Your task to perform on an android device: turn vacation reply on in the gmail app Image 0: 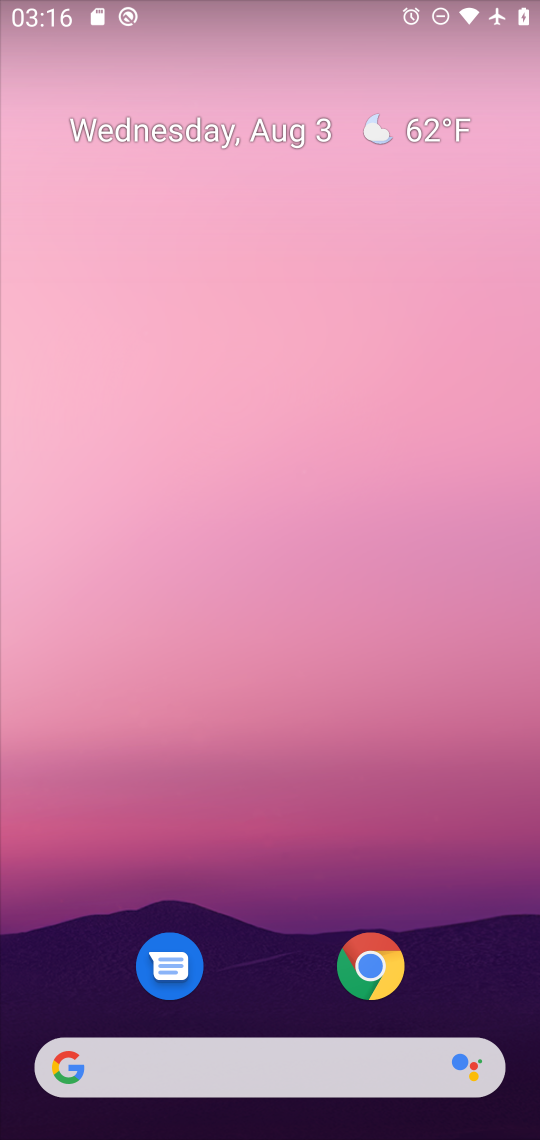
Step 0: drag from (270, 924) to (310, 475)
Your task to perform on an android device: turn vacation reply on in the gmail app Image 1: 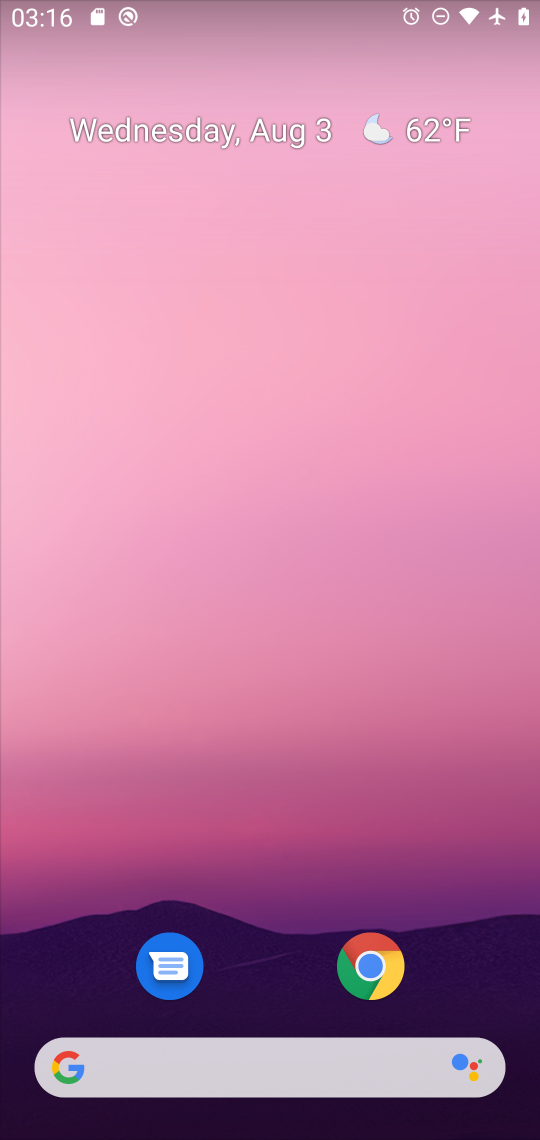
Step 1: drag from (275, 966) to (271, 314)
Your task to perform on an android device: turn vacation reply on in the gmail app Image 2: 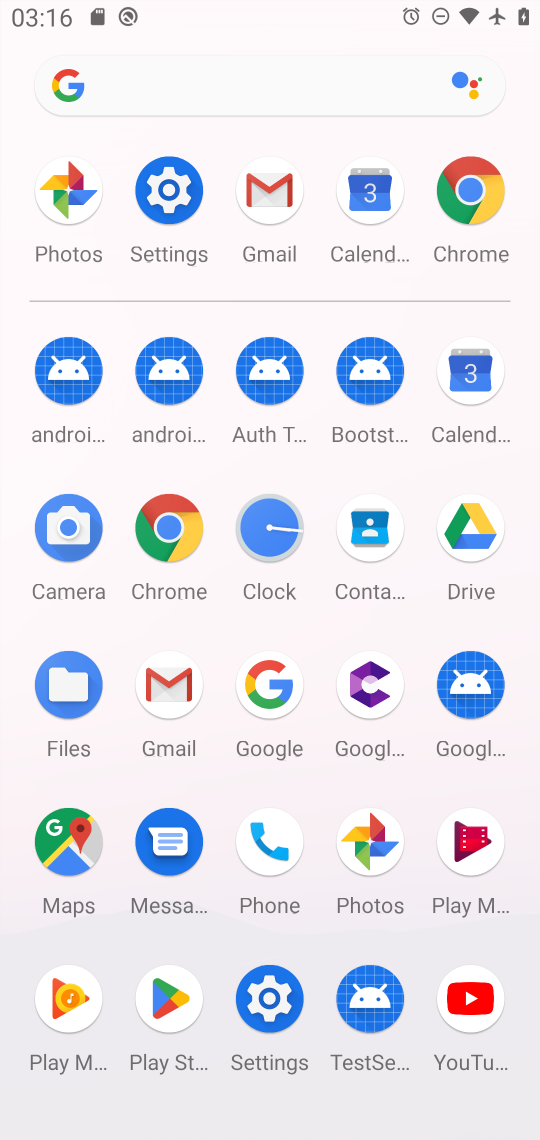
Step 2: click (262, 204)
Your task to perform on an android device: turn vacation reply on in the gmail app Image 3: 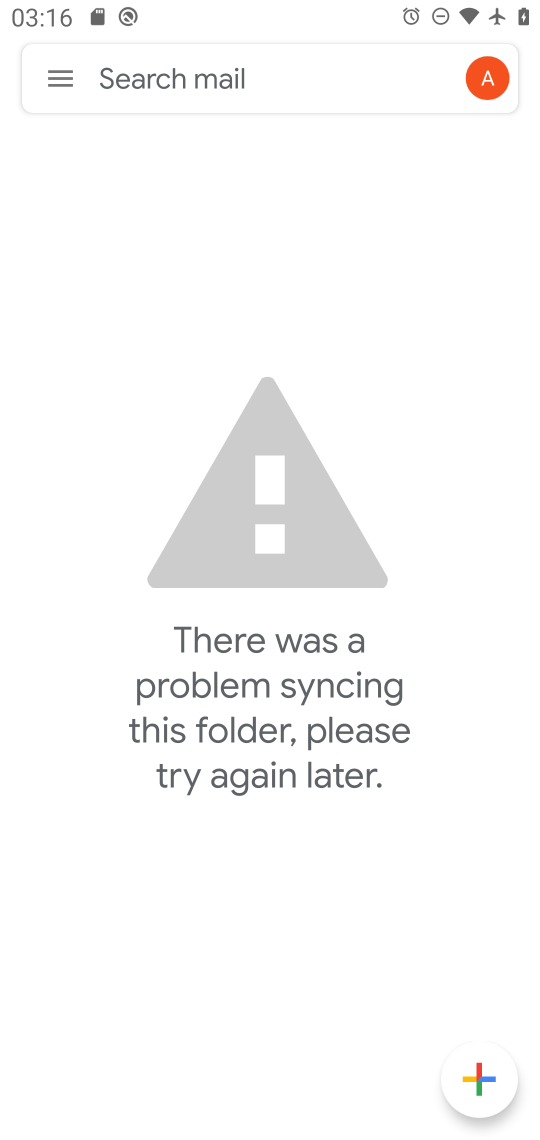
Step 3: click (70, 81)
Your task to perform on an android device: turn vacation reply on in the gmail app Image 4: 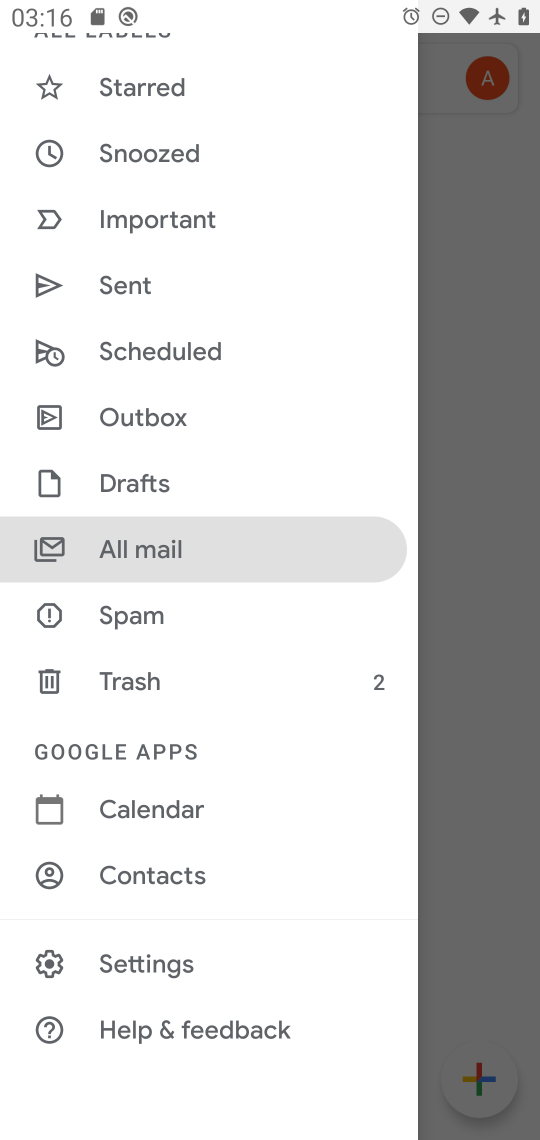
Step 4: click (181, 968)
Your task to perform on an android device: turn vacation reply on in the gmail app Image 5: 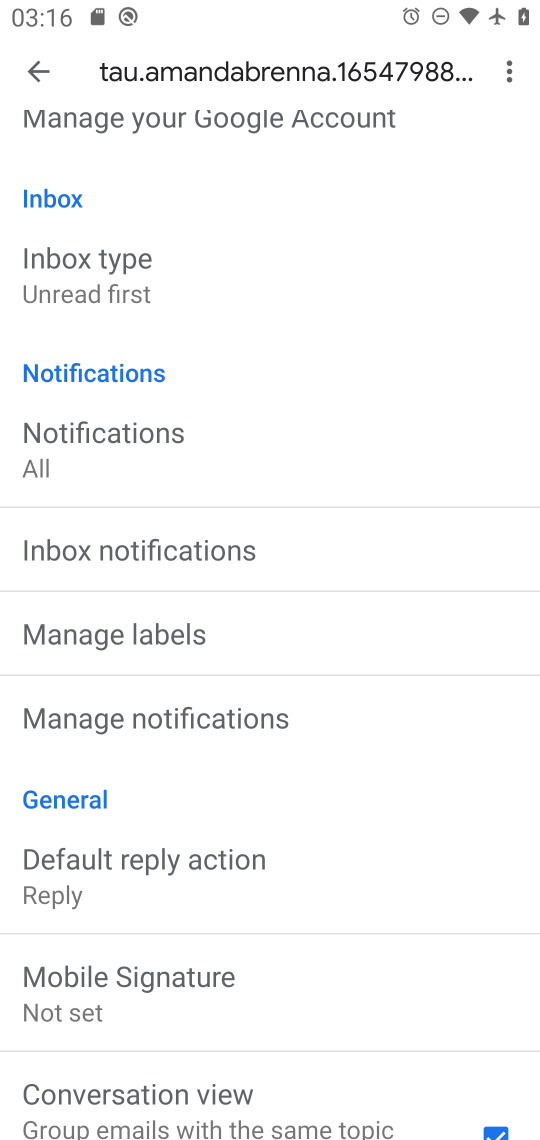
Step 5: drag from (222, 994) to (254, 567)
Your task to perform on an android device: turn vacation reply on in the gmail app Image 6: 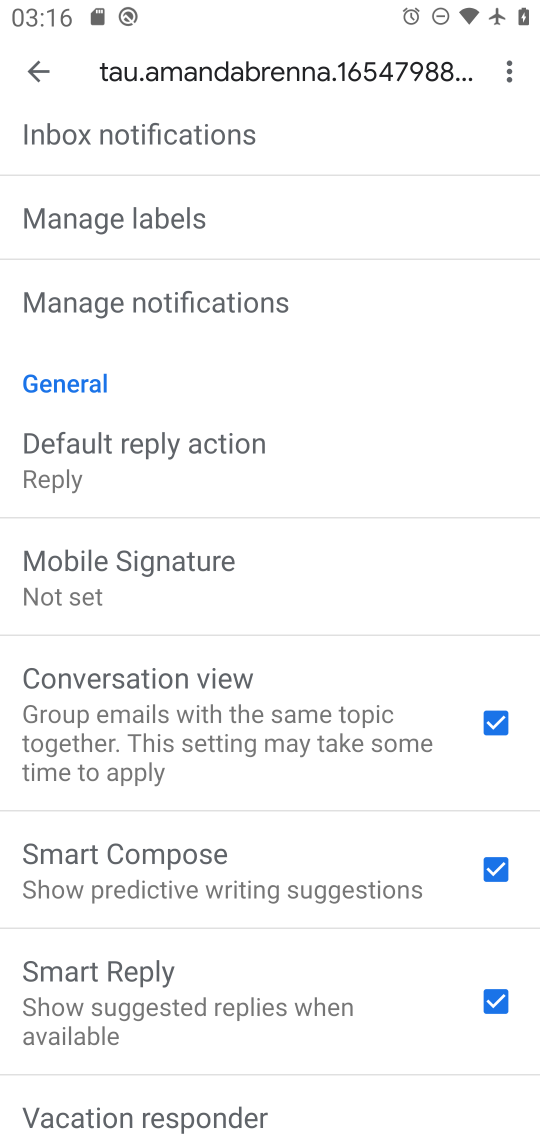
Step 6: click (230, 1096)
Your task to perform on an android device: turn vacation reply on in the gmail app Image 7: 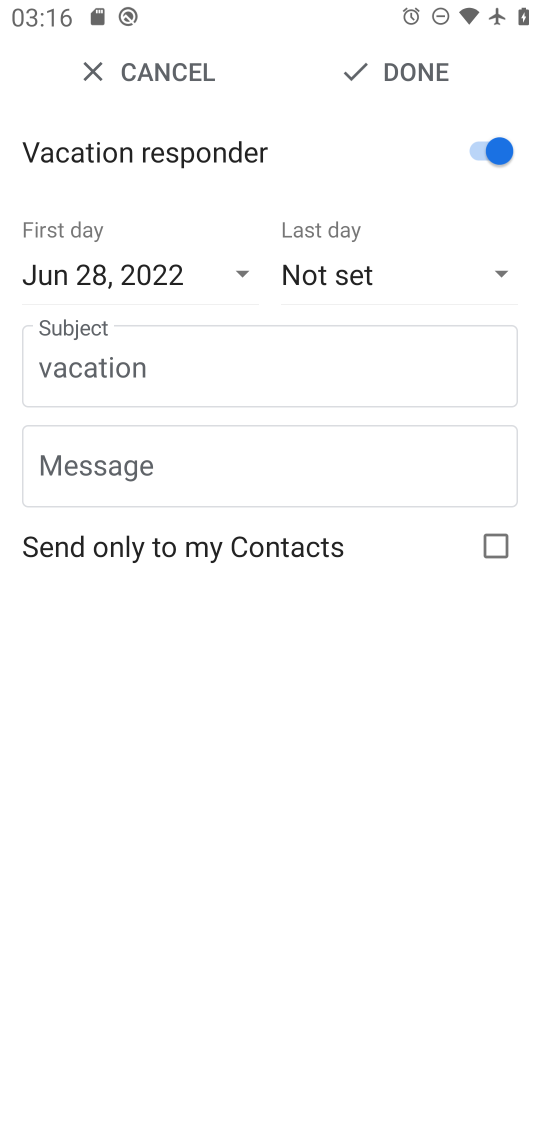
Step 7: task complete